Your task to perform on an android device: visit the assistant section in the google photos Image 0: 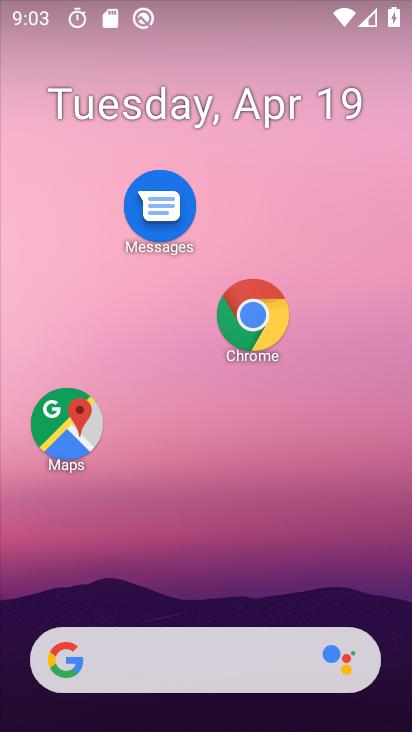
Step 0: drag from (194, 549) to (201, 164)
Your task to perform on an android device: visit the assistant section in the google photos Image 1: 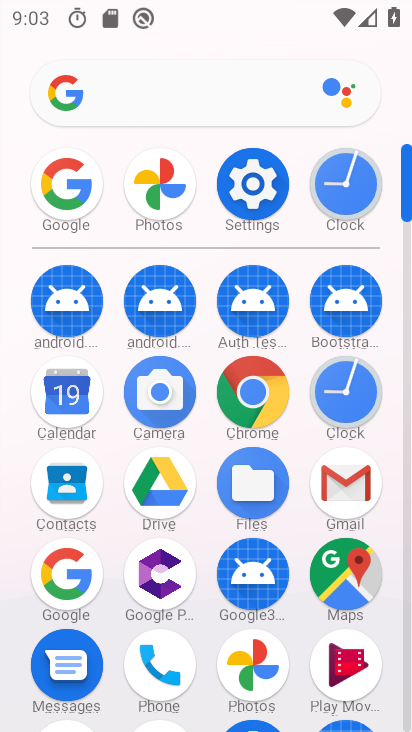
Step 1: click (173, 170)
Your task to perform on an android device: visit the assistant section in the google photos Image 2: 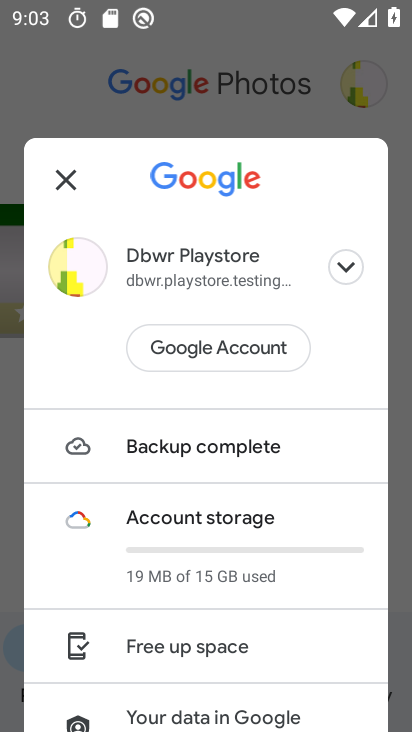
Step 2: task complete